Your task to perform on an android device: open app "DoorDash - Food Delivery" (install if not already installed), go to login, and select forgot password Image 0: 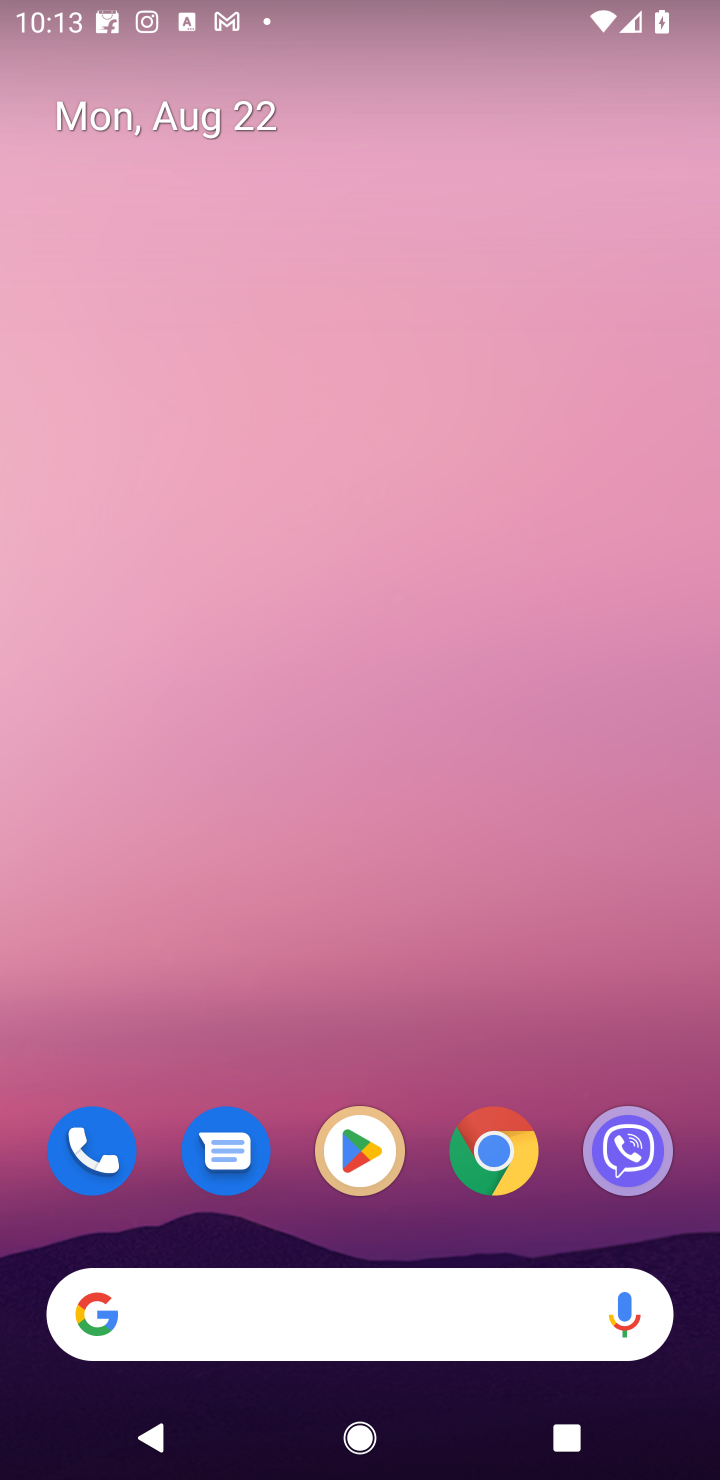
Step 0: press home button
Your task to perform on an android device: open app "DoorDash - Food Delivery" (install if not already installed), go to login, and select forgot password Image 1: 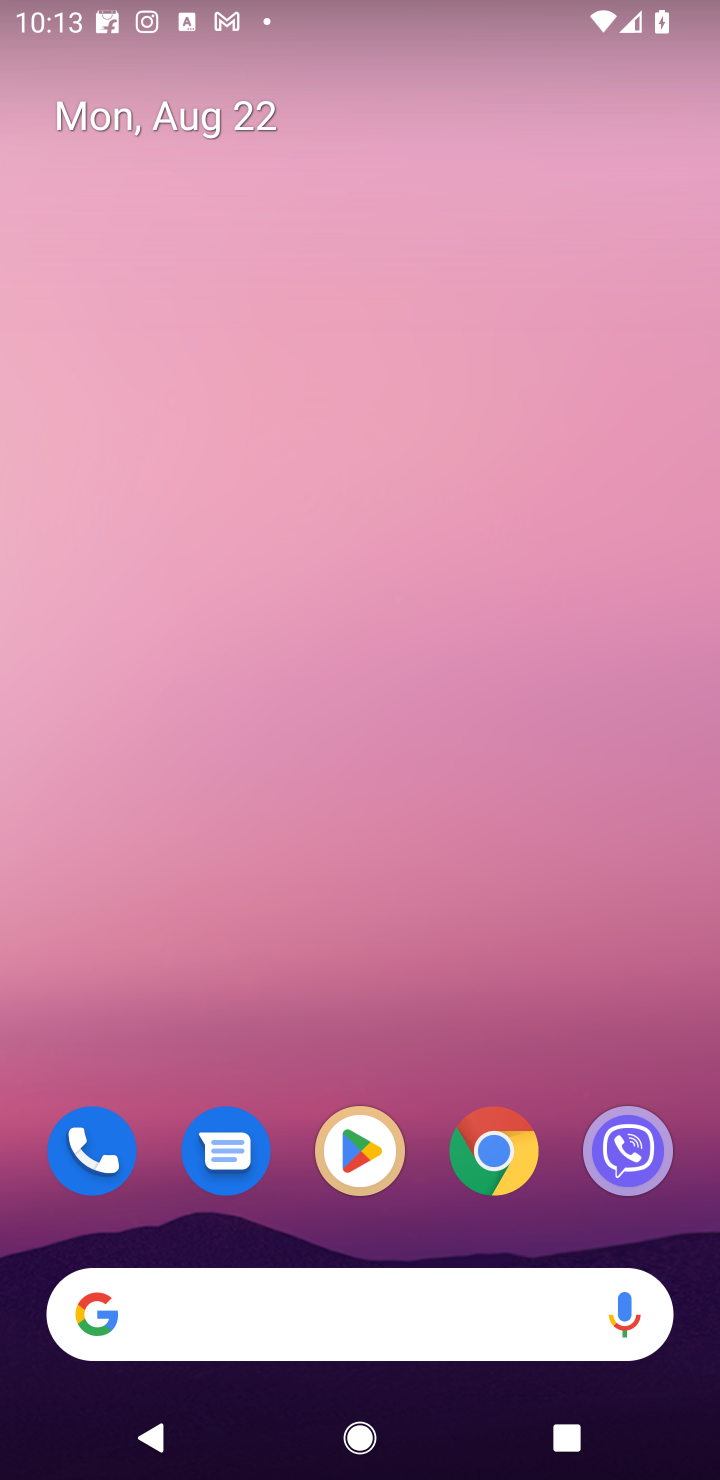
Step 1: click (361, 1147)
Your task to perform on an android device: open app "DoorDash - Food Delivery" (install if not already installed), go to login, and select forgot password Image 2: 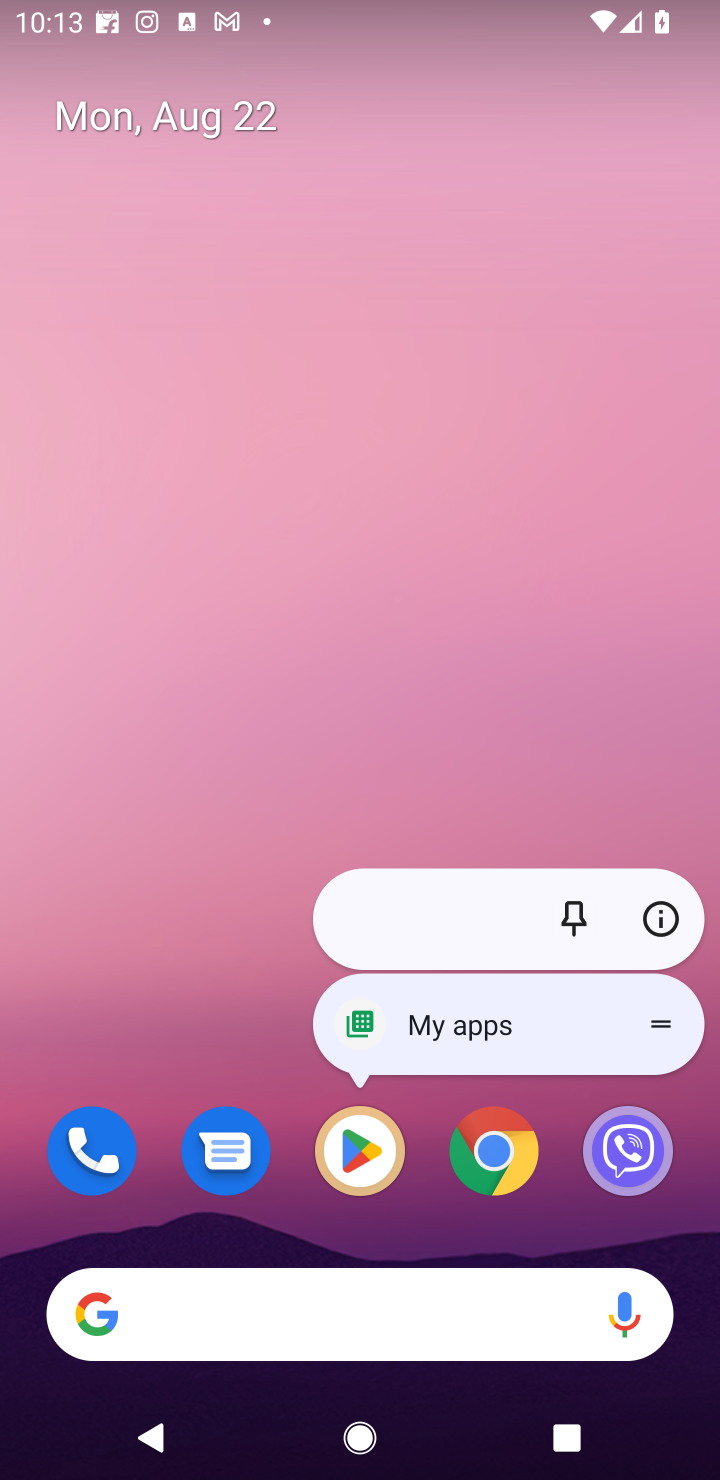
Step 2: click (363, 1149)
Your task to perform on an android device: open app "DoorDash - Food Delivery" (install if not already installed), go to login, and select forgot password Image 3: 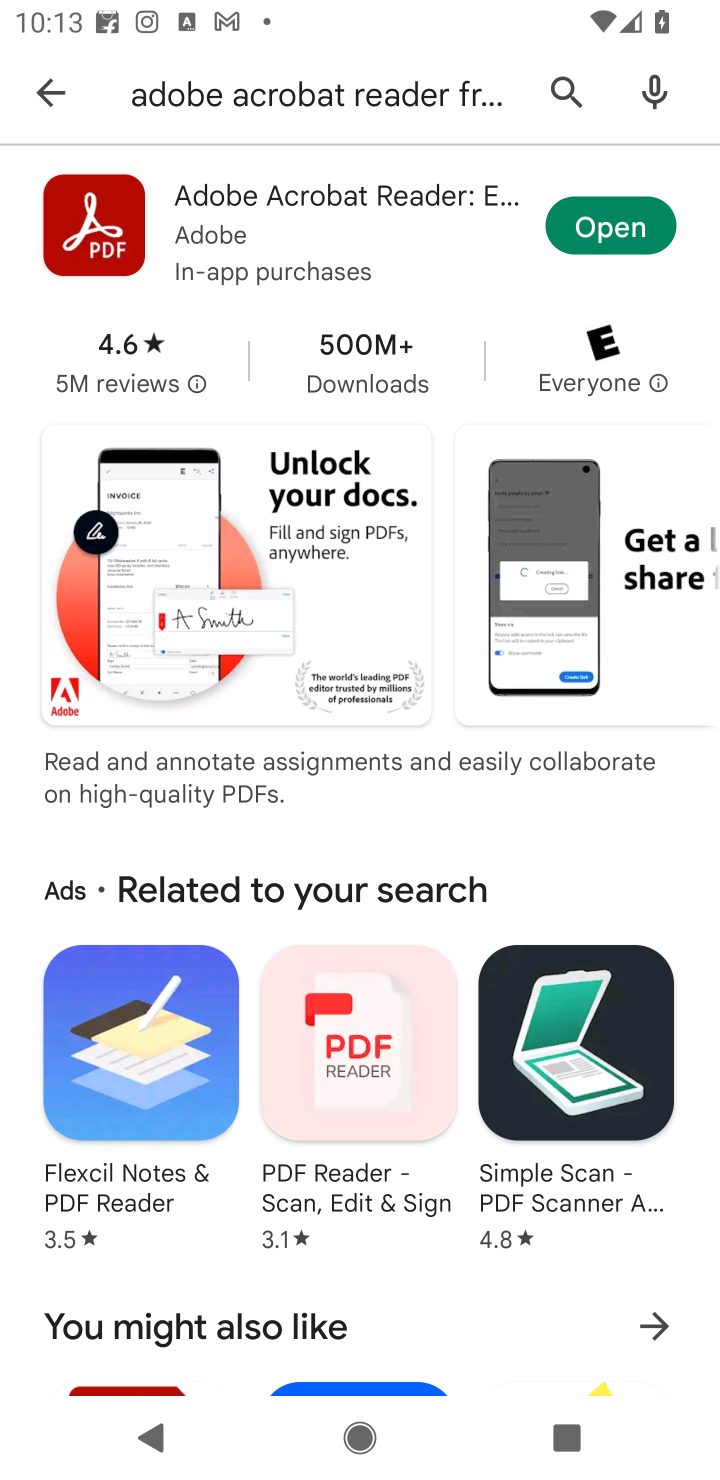
Step 3: click (559, 90)
Your task to perform on an android device: open app "DoorDash - Food Delivery" (install if not already installed), go to login, and select forgot password Image 4: 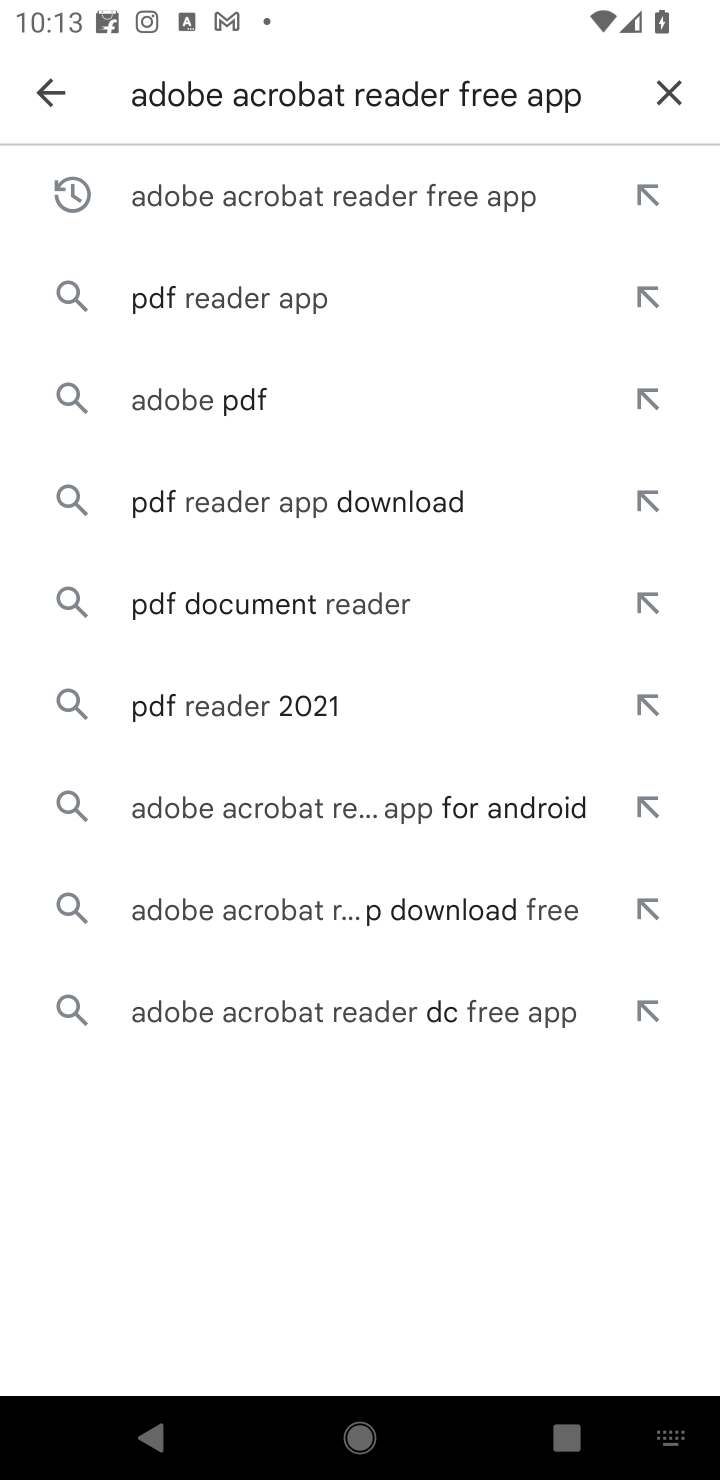
Step 4: click (649, 81)
Your task to perform on an android device: open app "DoorDash - Food Delivery" (install if not already installed), go to login, and select forgot password Image 5: 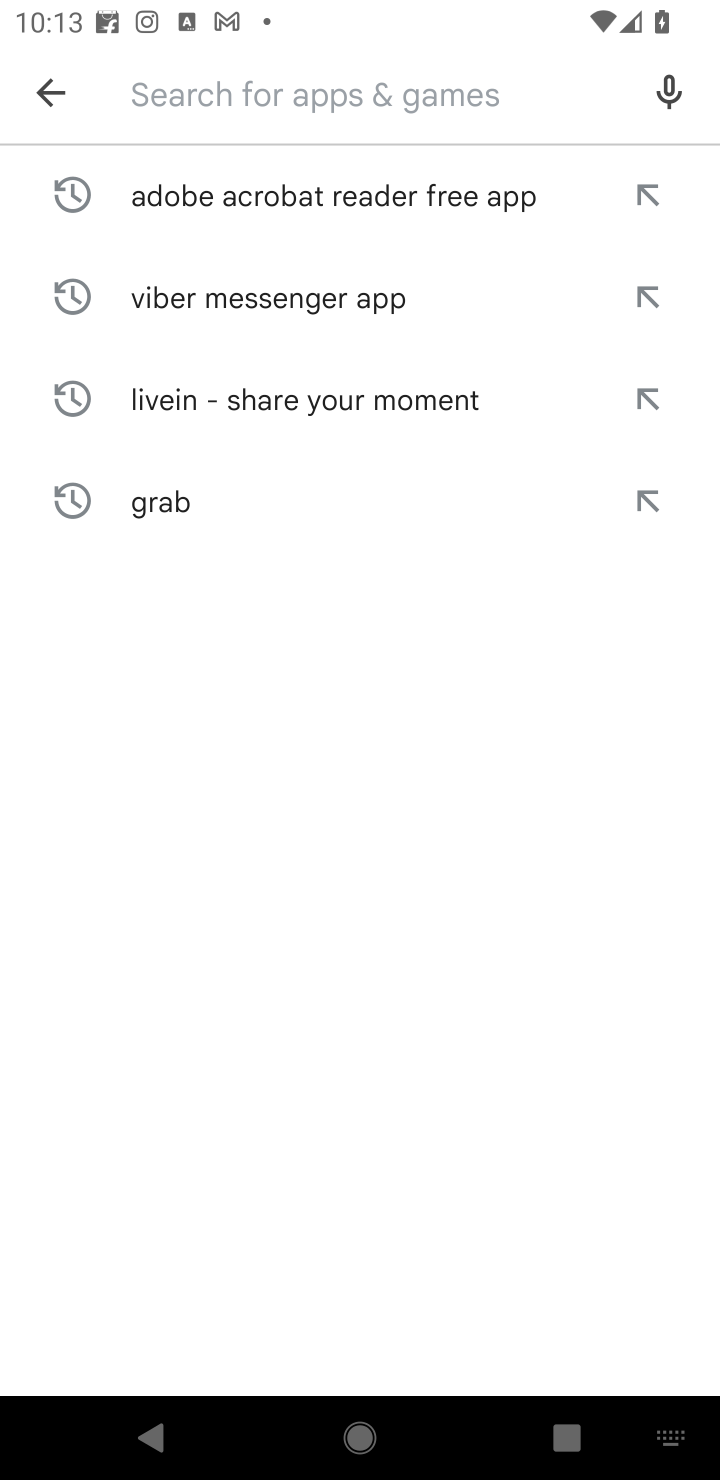
Step 5: type "DoorDash - Food Delivery"
Your task to perform on an android device: open app "DoorDash - Food Delivery" (install if not already installed), go to login, and select forgot password Image 6: 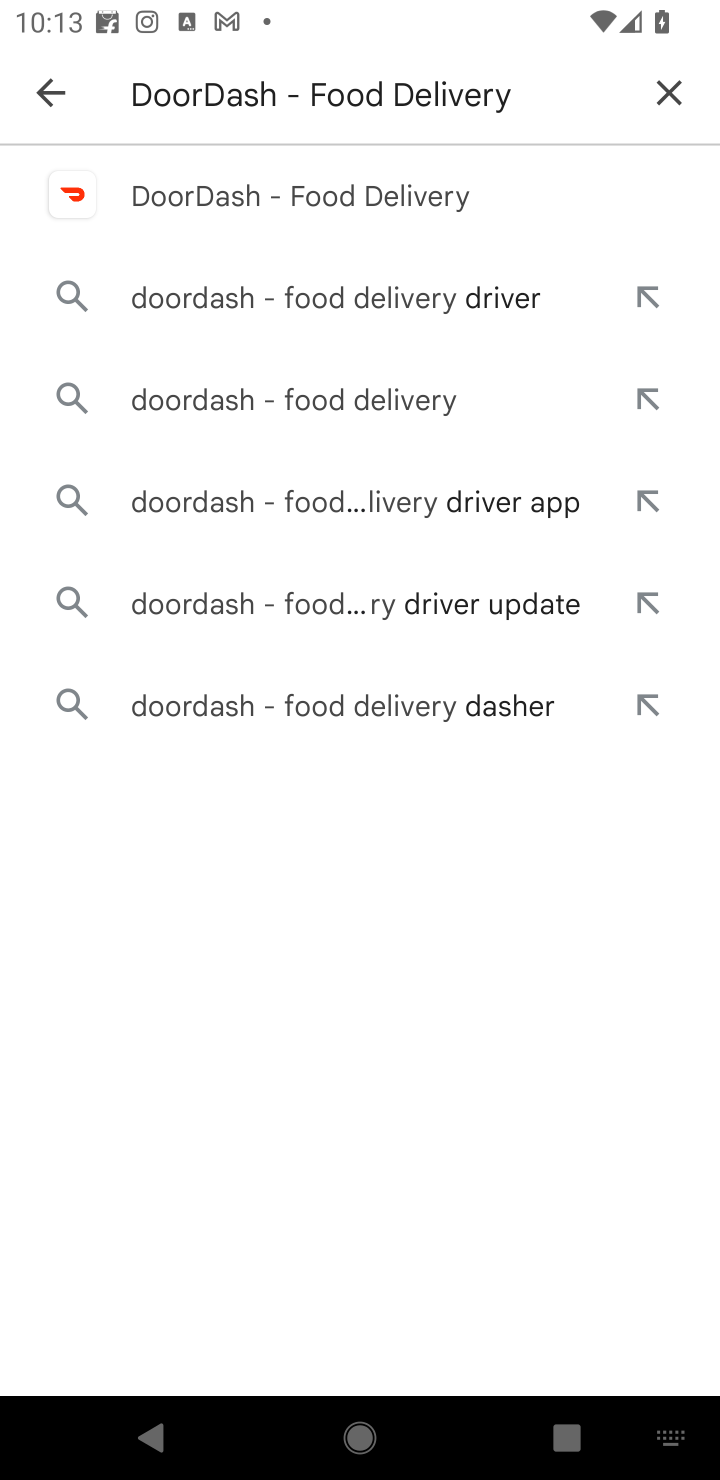
Step 6: click (256, 202)
Your task to perform on an android device: open app "DoorDash - Food Delivery" (install if not already installed), go to login, and select forgot password Image 7: 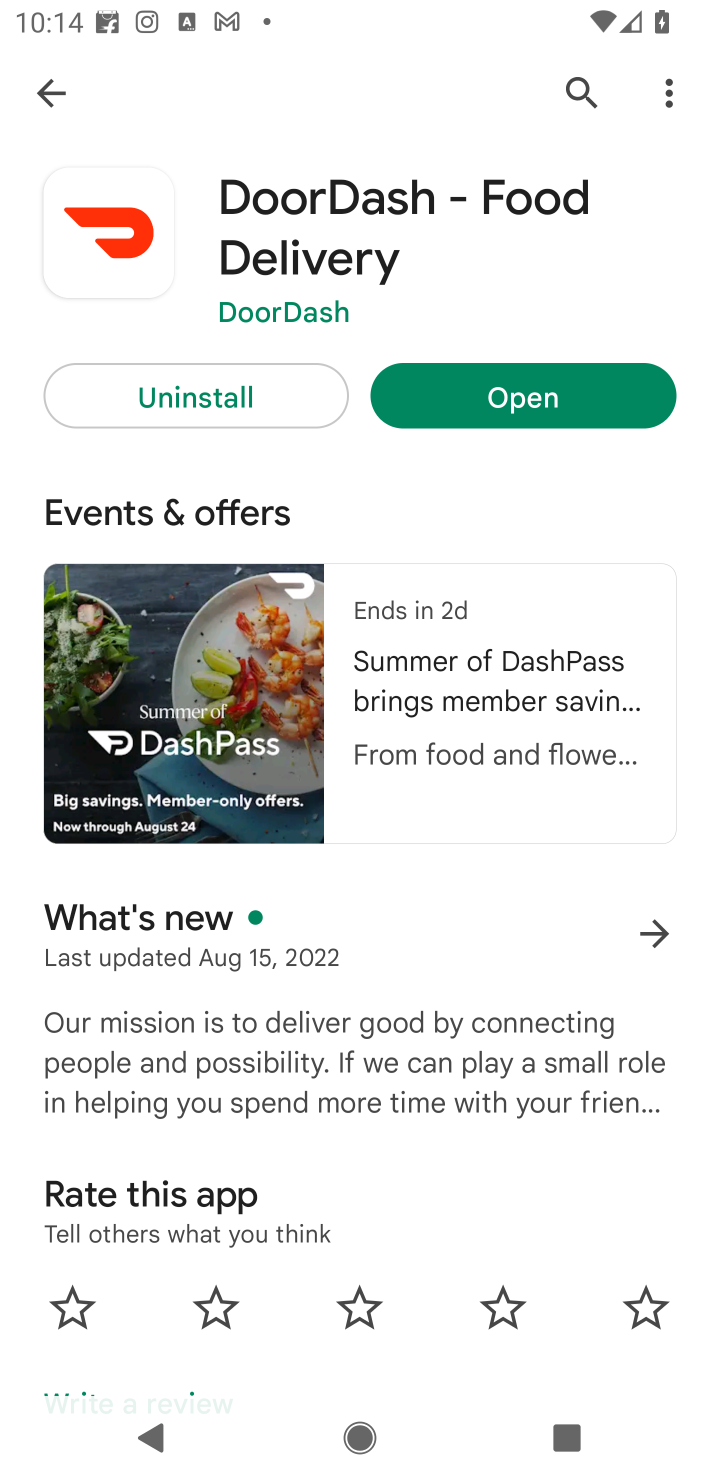
Step 7: click (558, 407)
Your task to perform on an android device: open app "DoorDash - Food Delivery" (install if not already installed), go to login, and select forgot password Image 8: 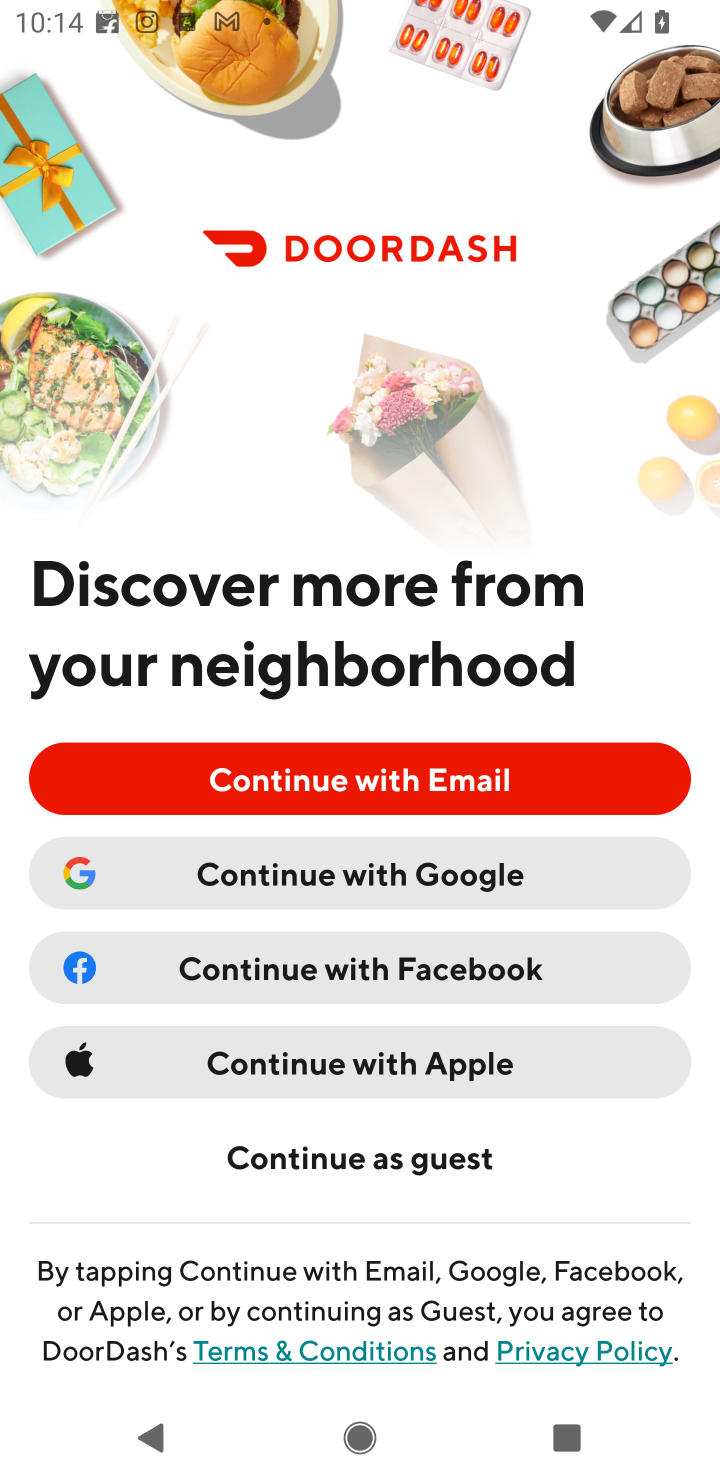
Step 8: click (435, 780)
Your task to perform on an android device: open app "DoorDash - Food Delivery" (install if not already installed), go to login, and select forgot password Image 9: 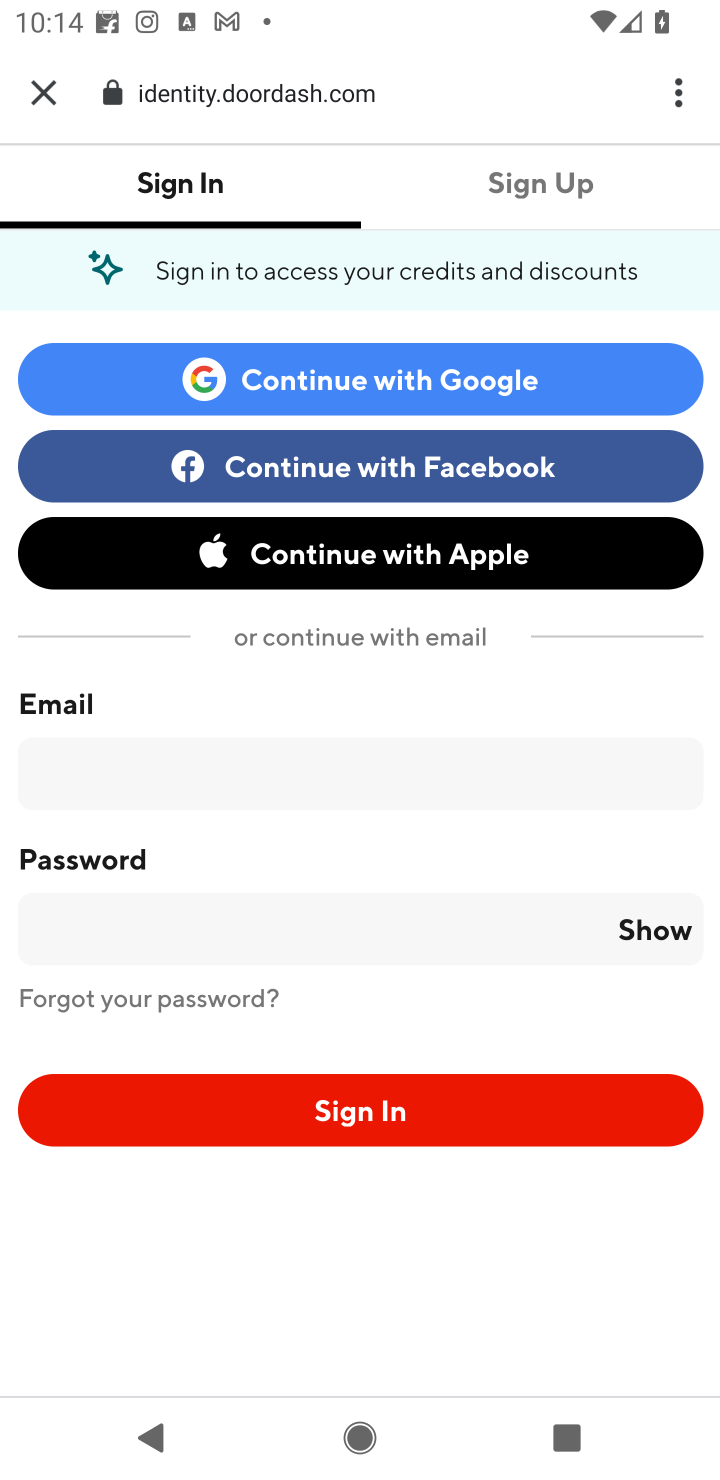
Step 9: click (185, 994)
Your task to perform on an android device: open app "DoorDash - Food Delivery" (install if not already installed), go to login, and select forgot password Image 10: 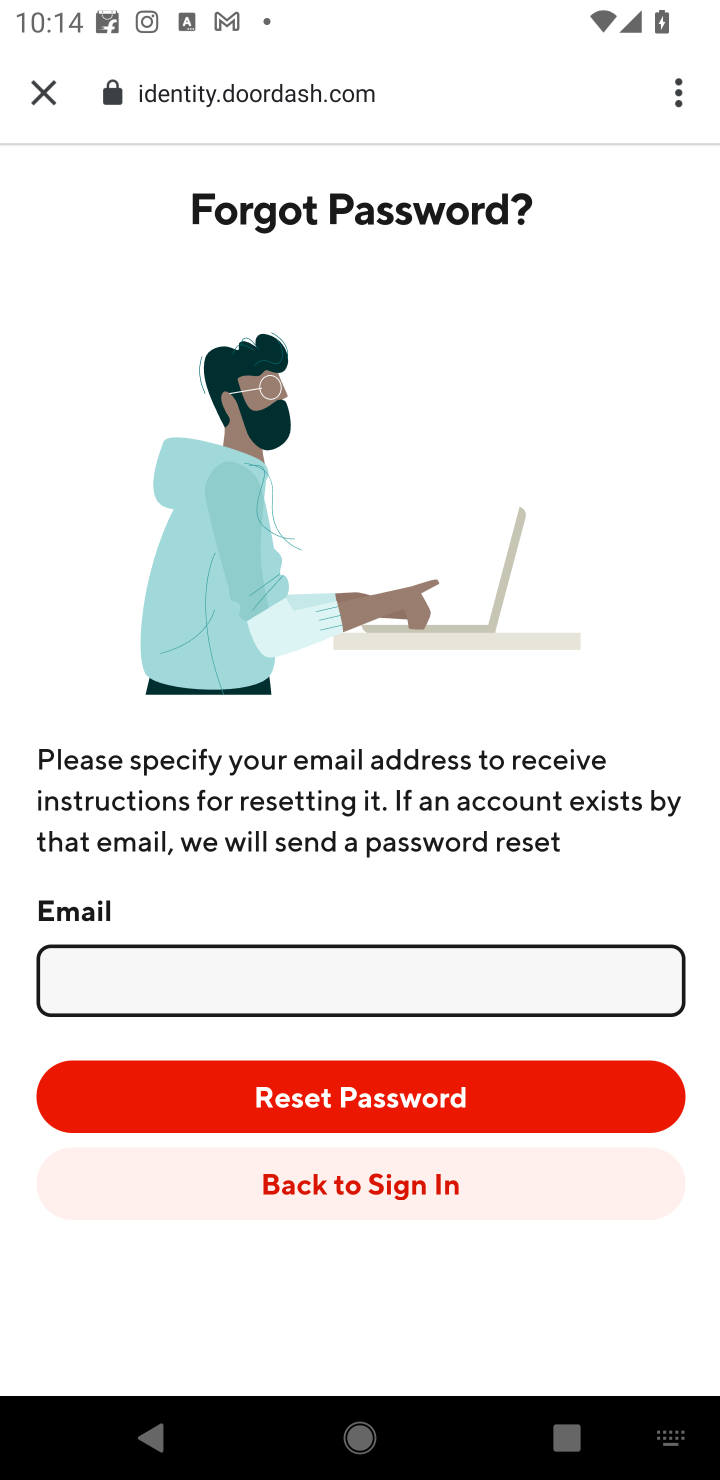
Step 10: task complete